Your task to perform on an android device: Go to Maps Image 0: 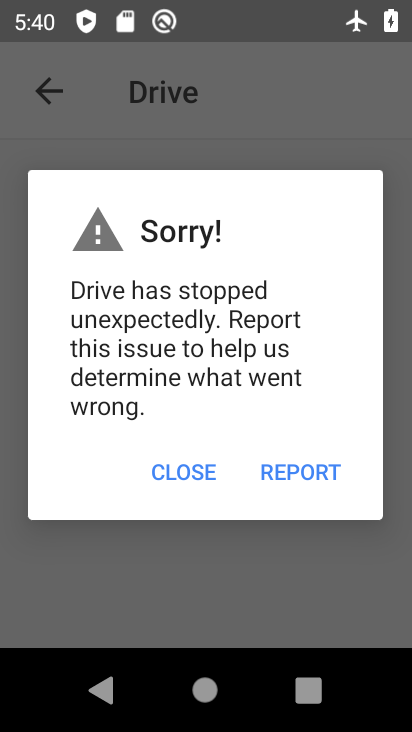
Step 0: press home button
Your task to perform on an android device: Go to Maps Image 1: 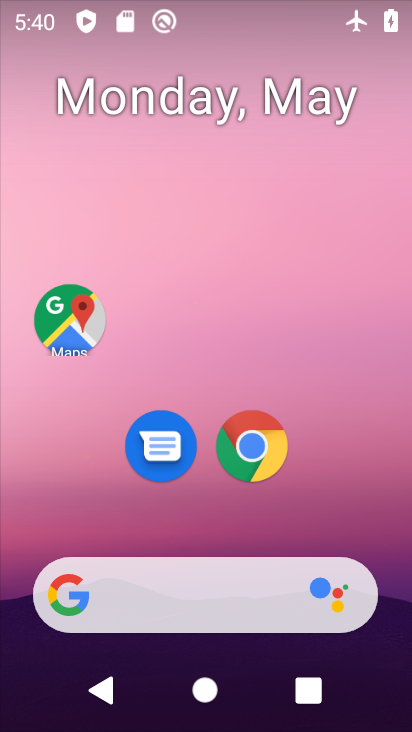
Step 1: click (60, 327)
Your task to perform on an android device: Go to Maps Image 2: 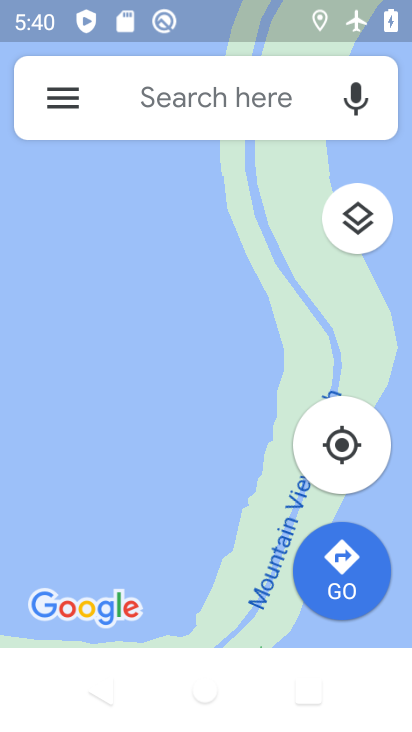
Step 2: task complete